Your task to perform on an android device: What's the weather? Image 0: 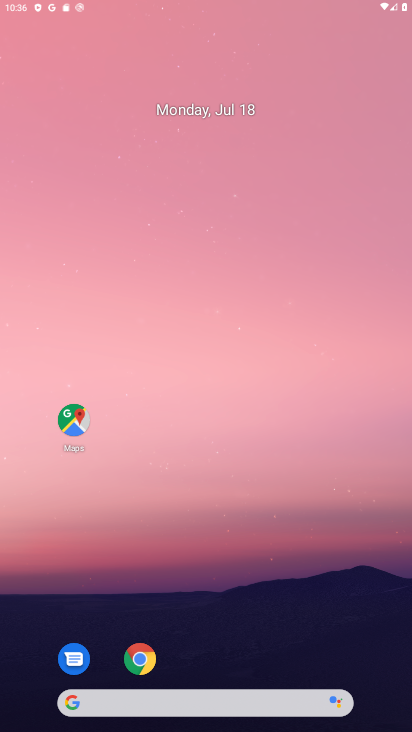
Step 0: press home button
Your task to perform on an android device: What's the weather? Image 1: 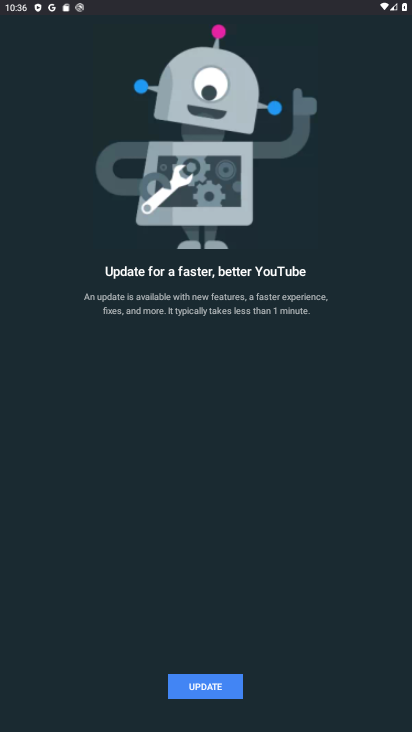
Step 1: click (104, 257)
Your task to perform on an android device: What's the weather? Image 2: 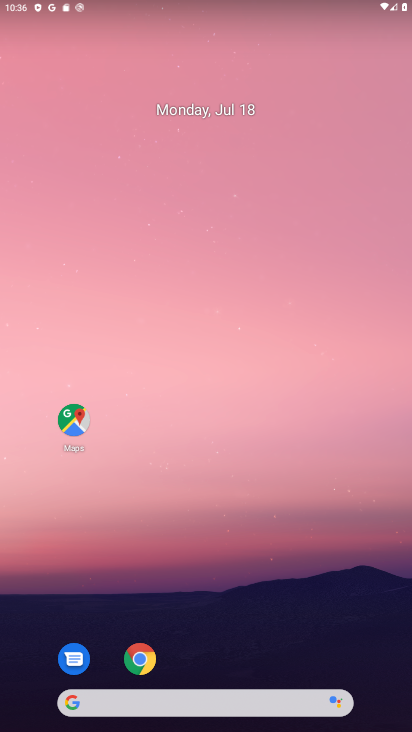
Step 2: click (142, 659)
Your task to perform on an android device: What's the weather? Image 3: 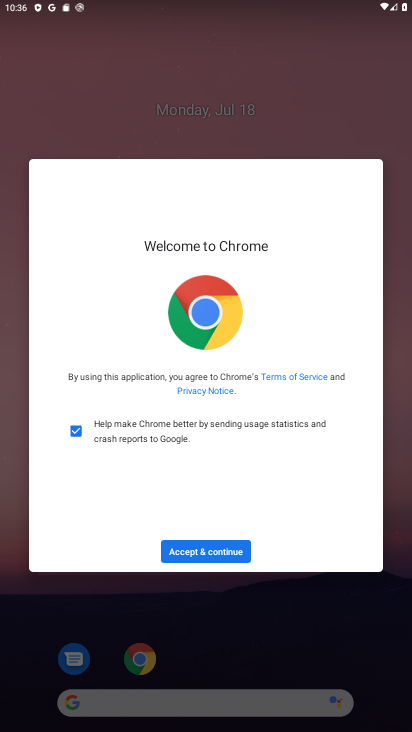
Step 3: click (205, 559)
Your task to perform on an android device: What's the weather? Image 4: 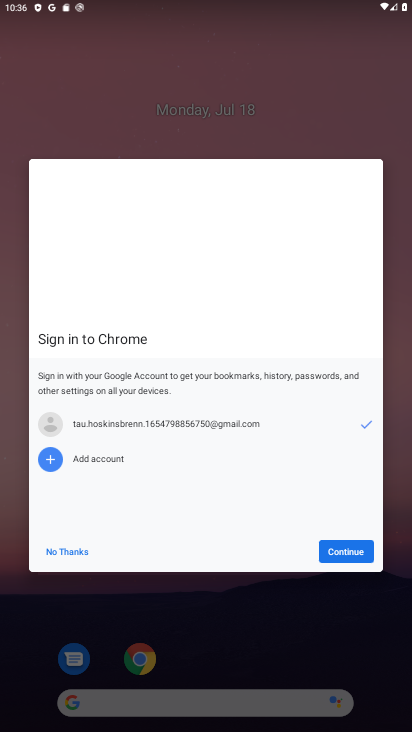
Step 4: click (352, 561)
Your task to perform on an android device: What's the weather? Image 5: 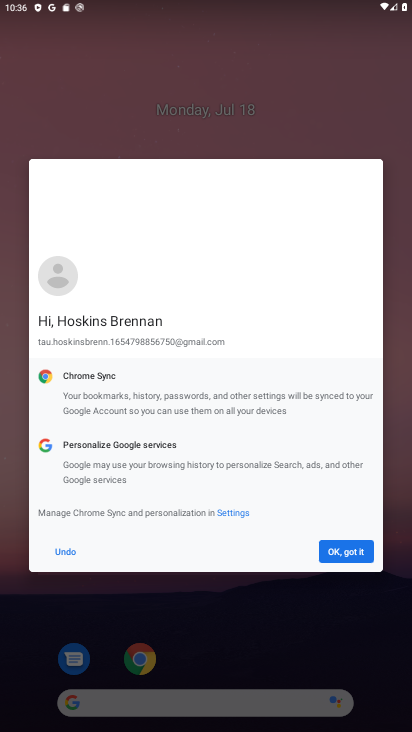
Step 5: click (343, 537)
Your task to perform on an android device: What's the weather? Image 6: 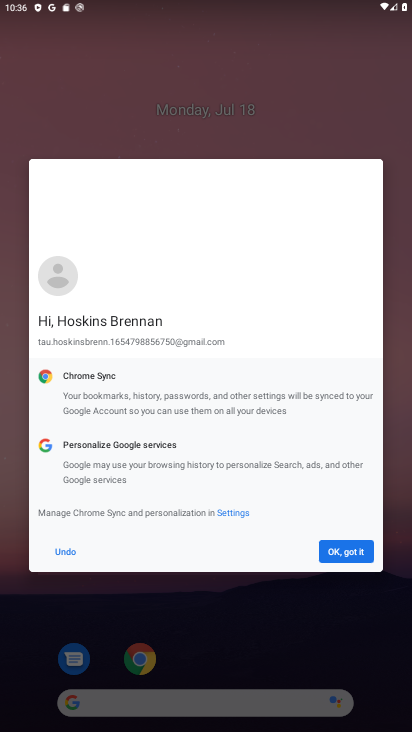
Step 6: click (330, 544)
Your task to perform on an android device: What's the weather? Image 7: 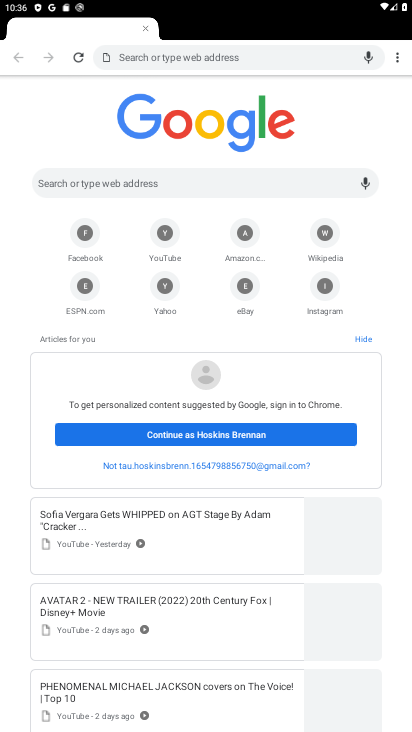
Step 7: click (131, 54)
Your task to perform on an android device: What's the weather? Image 8: 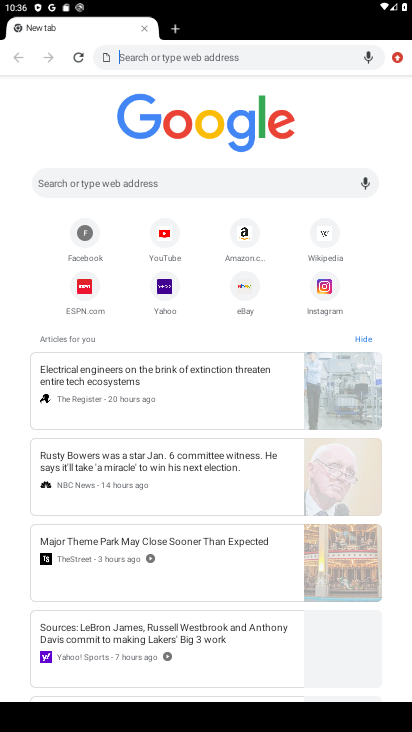
Step 8: type "What's the weather?"
Your task to perform on an android device: What's the weather? Image 9: 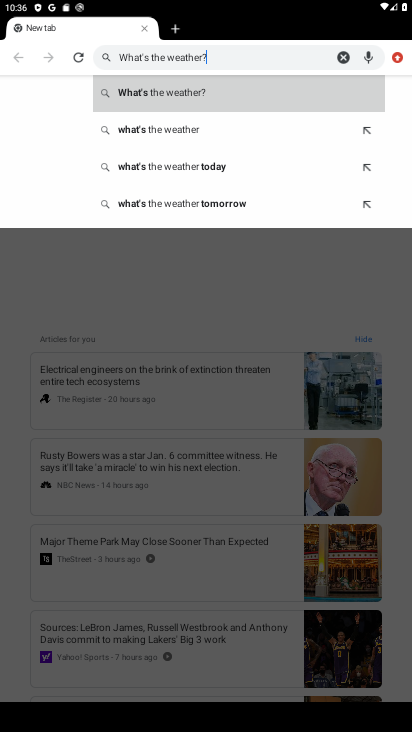
Step 9: type ""
Your task to perform on an android device: What's the weather? Image 10: 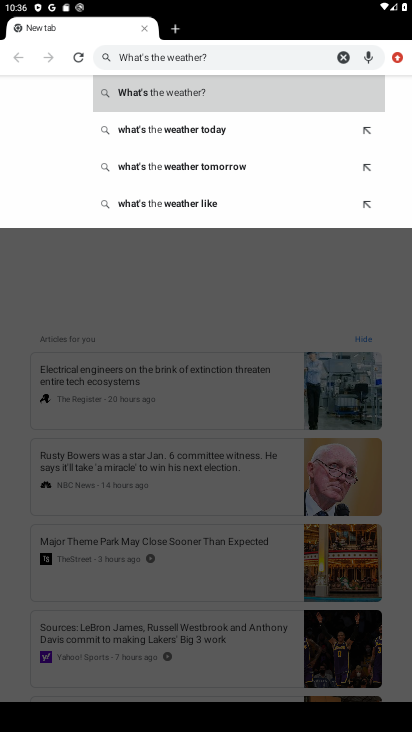
Step 10: click (162, 88)
Your task to perform on an android device: What's the weather? Image 11: 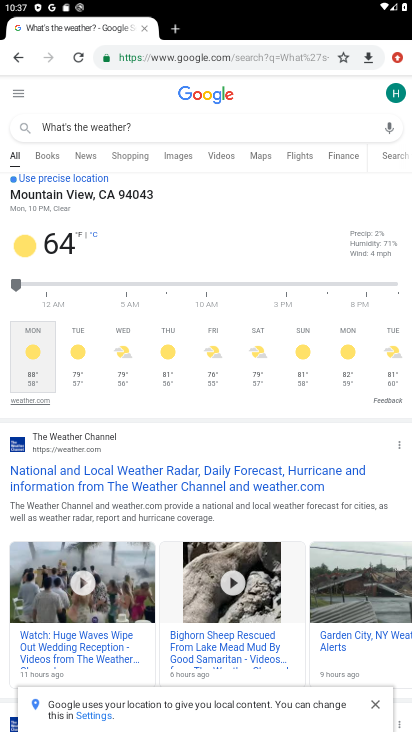
Step 11: task complete